Your task to perform on an android device: Open privacy settings Image 0: 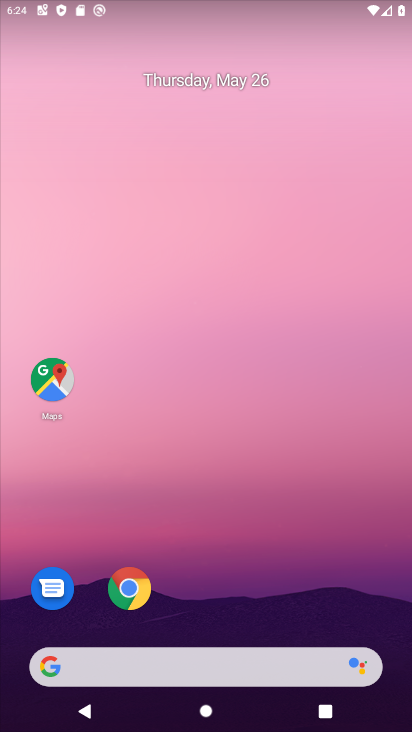
Step 0: drag from (366, 610) to (231, 19)
Your task to perform on an android device: Open privacy settings Image 1: 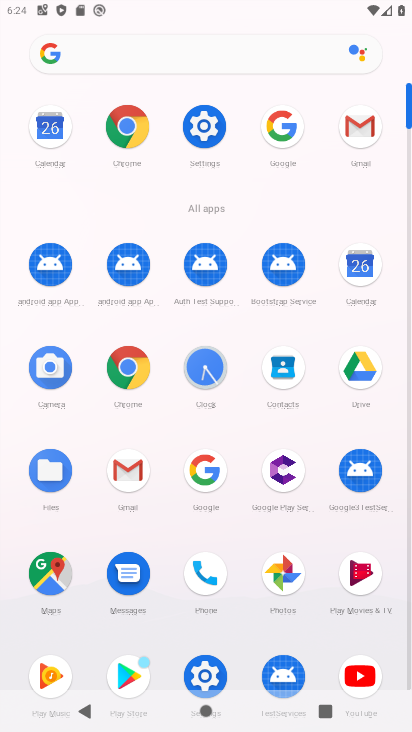
Step 1: click (207, 123)
Your task to perform on an android device: Open privacy settings Image 2: 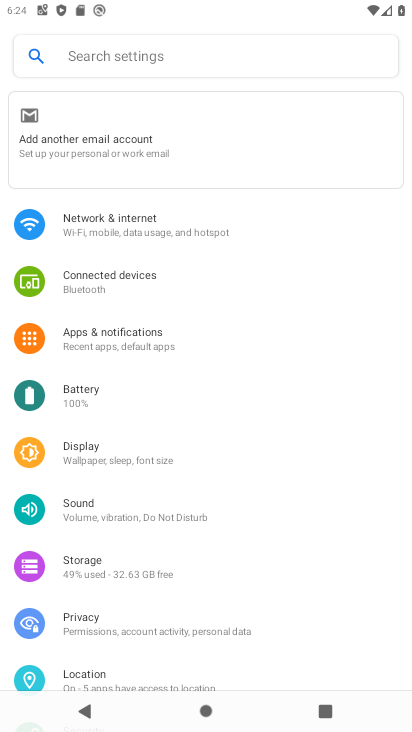
Step 2: drag from (75, 632) to (137, 227)
Your task to perform on an android device: Open privacy settings Image 3: 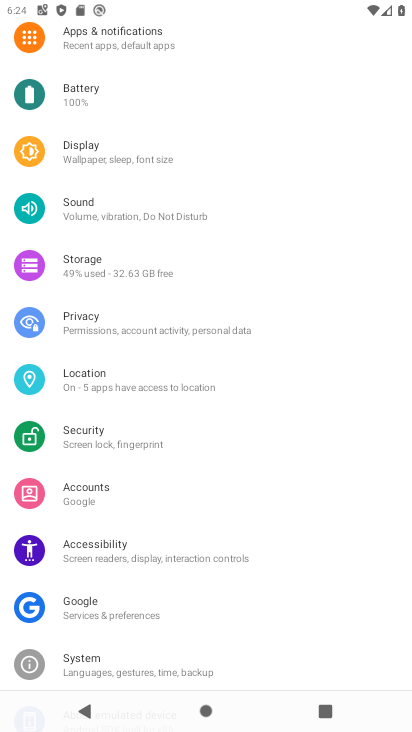
Step 3: click (107, 315)
Your task to perform on an android device: Open privacy settings Image 4: 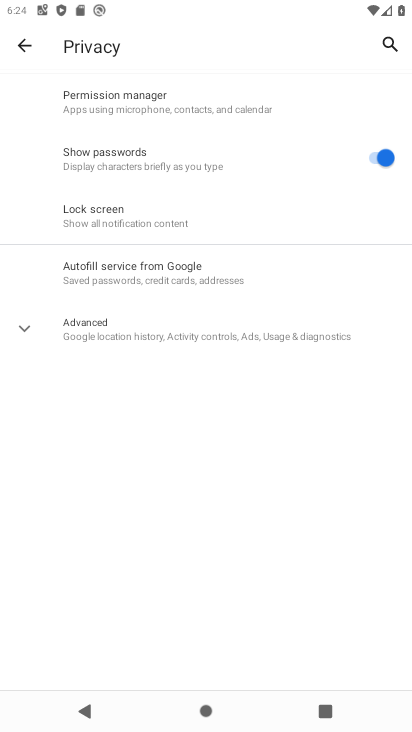
Step 4: task complete